Your task to perform on an android device: toggle sleep mode Image 0: 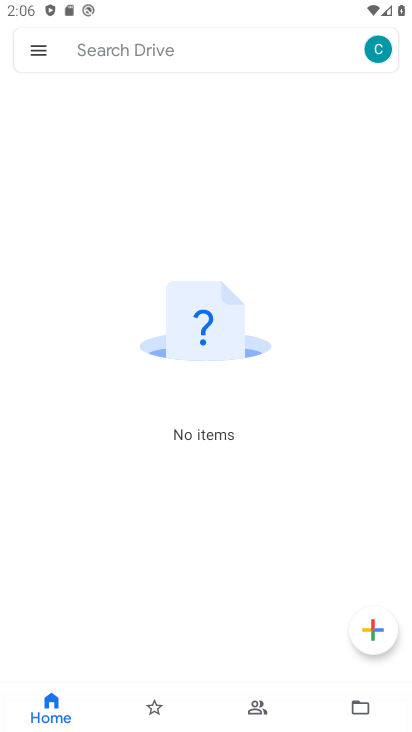
Step 0: press home button
Your task to perform on an android device: toggle sleep mode Image 1: 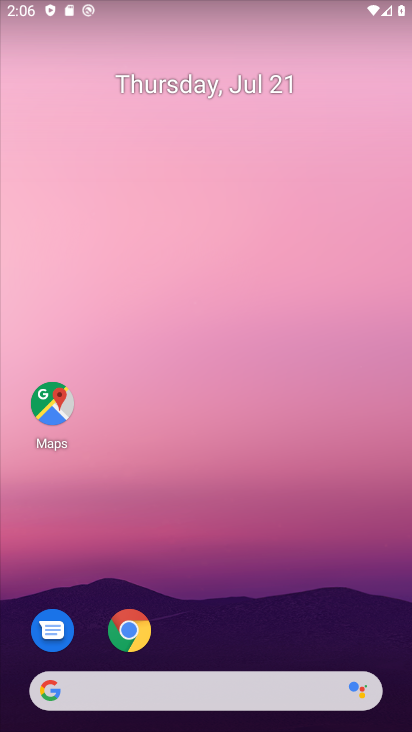
Step 1: drag from (293, 578) to (283, 297)
Your task to perform on an android device: toggle sleep mode Image 2: 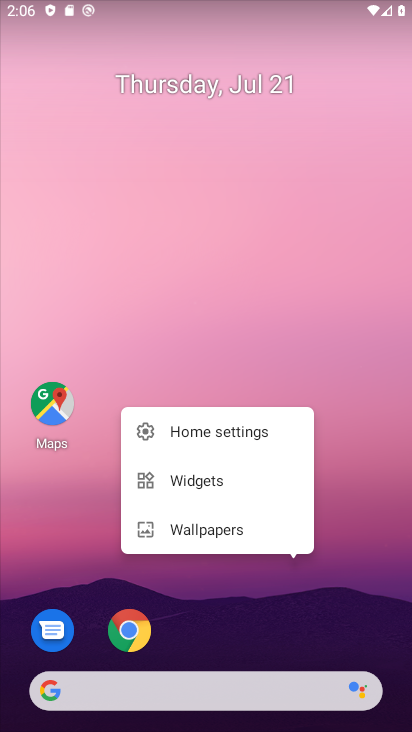
Step 2: click (283, 297)
Your task to perform on an android device: toggle sleep mode Image 3: 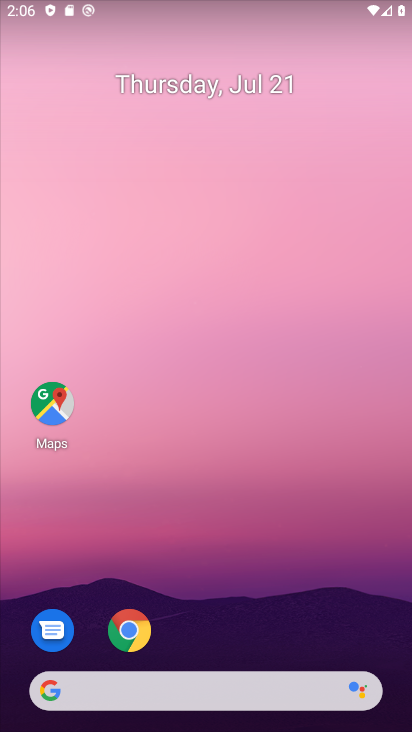
Step 3: task complete